Your task to perform on an android device: turn off notifications settings in the gmail app Image 0: 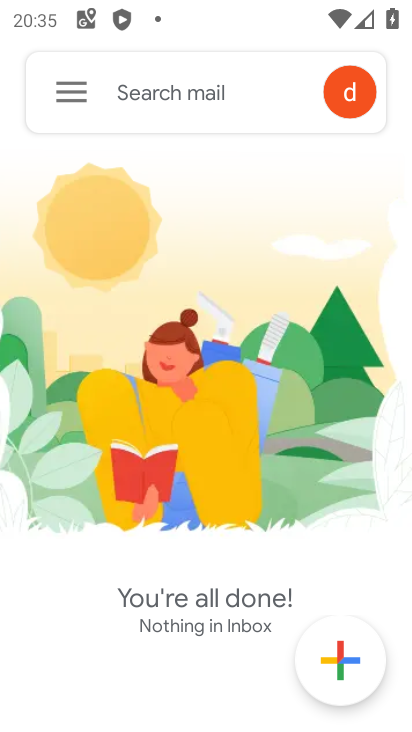
Step 0: click (60, 84)
Your task to perform on an android device: turn off notifications settings in the gmail app Image 1: 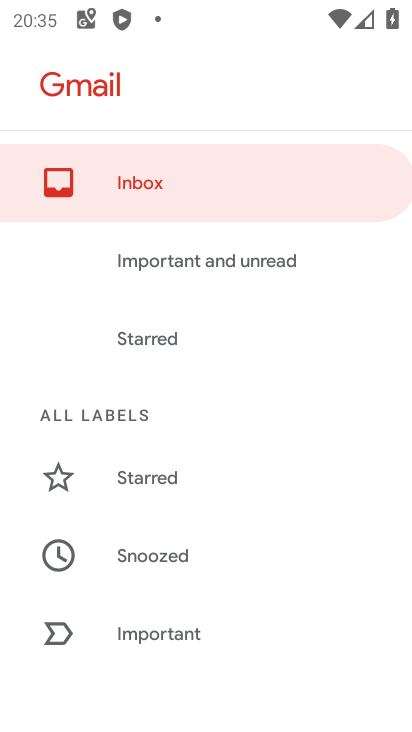
Step 1: drag from (103, 594) to (151, 135)
Your task to perform on an android device: turn off notifications settings in the gmail app Image 2: 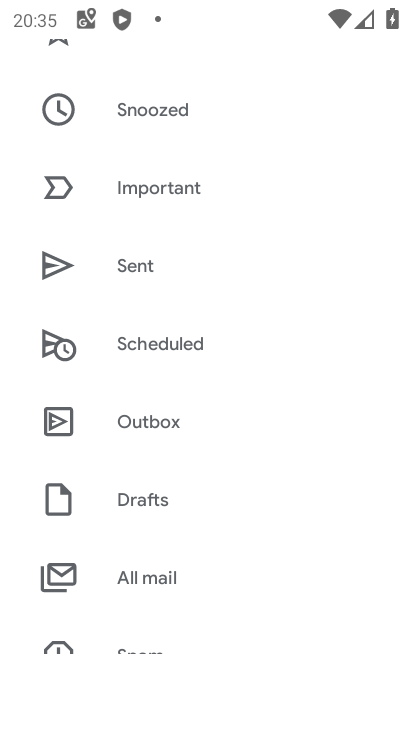
Step 2: drag from (198, 264) to (215, 107)
Your task to perform on an android device: turn off notifications settings in the gmail app Image 3: 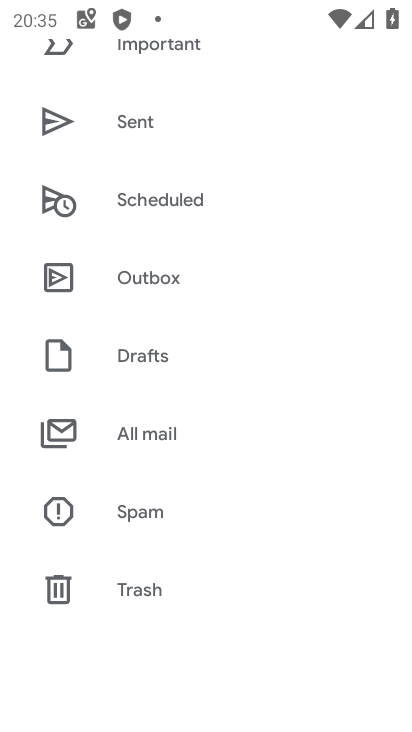
Step 3: drag from (164, 146) to (180, 648)
Your task to perform on an android device: turn off notifications settings in the gmail app Image 4: 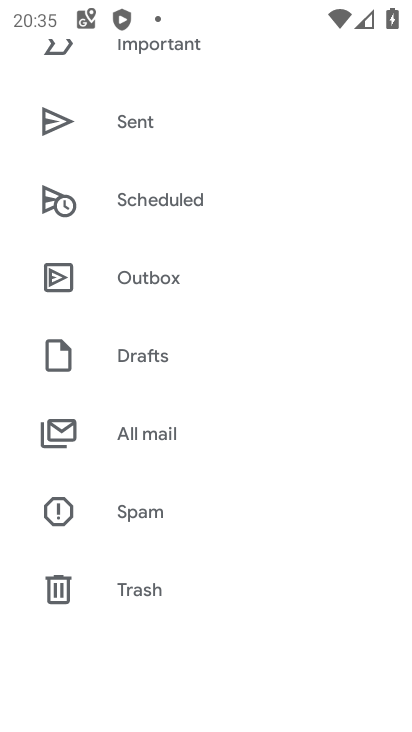
Step 4: drag from (250, 188) to (260, 675)
Your task to perform on an android device: turn off notifications settings in the gmail app Image 5: 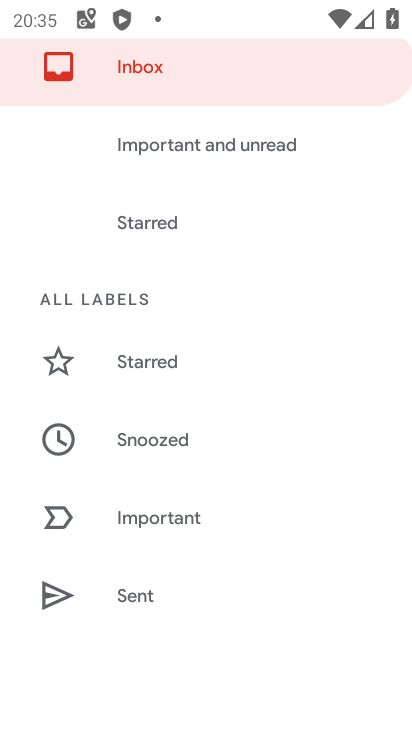
Step 5: drag from (194, 588) to (264, 130)
Your task to perform on an android device: turn off notifications settings in the gmail app Image 6: 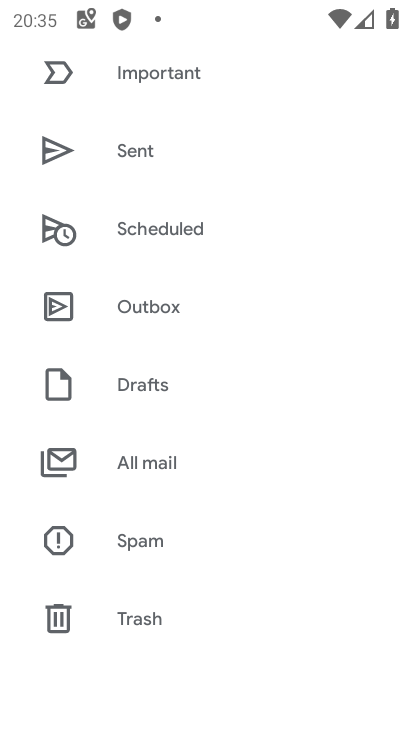
Step 6: drag from (241, 136) to (226, 519)
Your task to perform on an android device: turn off notifications settings in the gmail app Image 7: 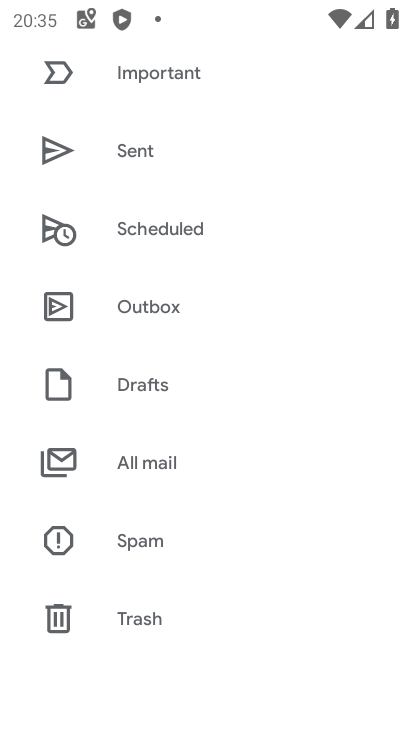
Step 7: drag from (242, 168) to (244, 512)
Your task to perform on an android device: turn off notifications settings in the gmail app Image 8: 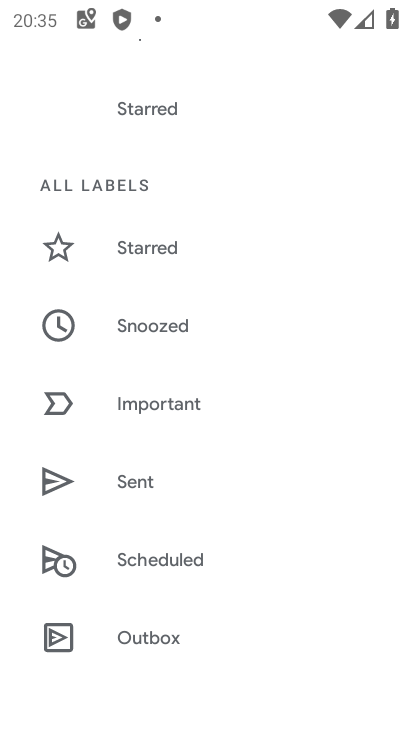
Step 8: drag from (115, 604) to (108, 128)
Your task to perform on an android device: turn off notifications settings in the gmail app Image 9: 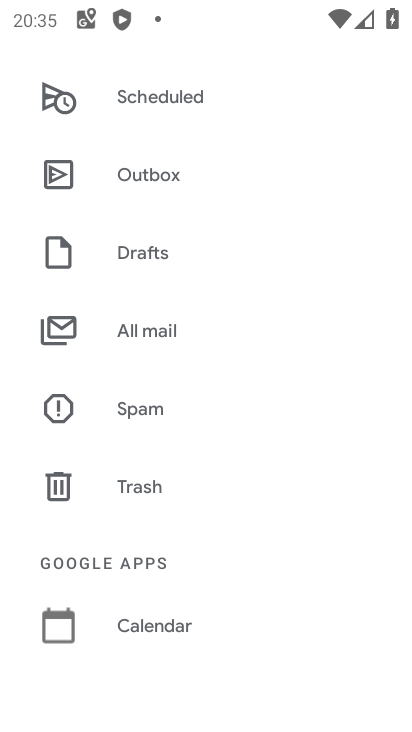
Step 9: drag from (194, 134) to (248, 667)
Your task to perform on an android device: turn off notifications settings in the gmail app Image 10: 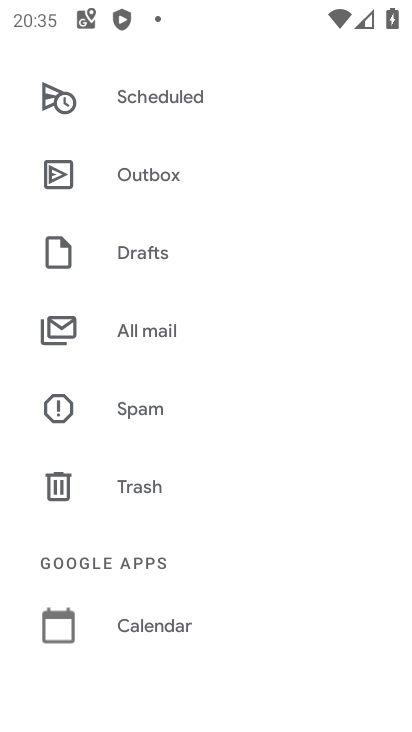
Step 10: drag from (250, 148) to (233, 628)
Your task to perform on an android device: turn off notifications settings in the gmail app Image 11: 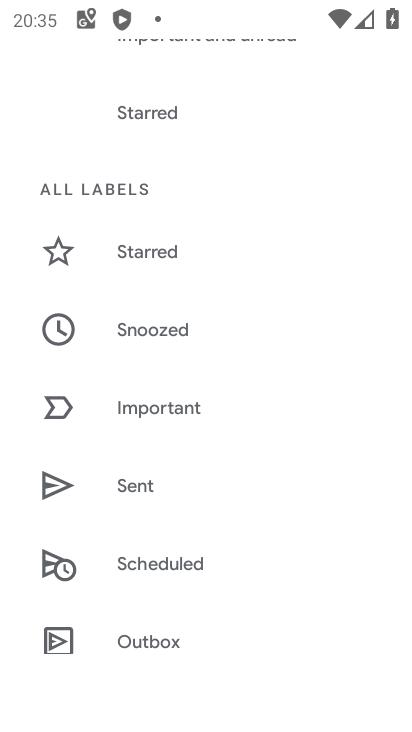
Step 11: drag from (247, 269) to (241, 597)
Your task to perform on an android device: turn off notifications settings in the gmail app Image 12: 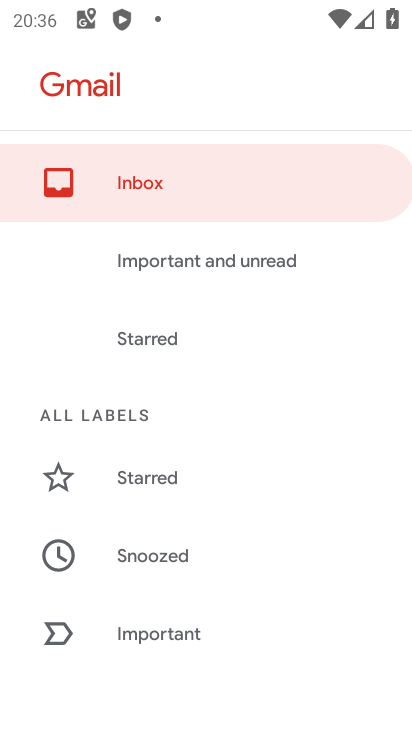
Step 12: drag from (241, 597) to (311, 10)
Your task to perform on an android device: turn off notifications settings in the gmail app Image 13: 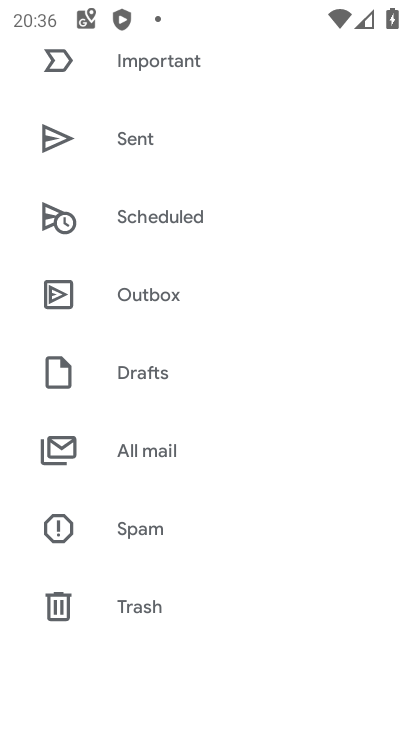
Step 13: drag from (211, 560) to (243, 100)
Your task to perform on an android device: turn off notifications settings in the gmail app Image 14: 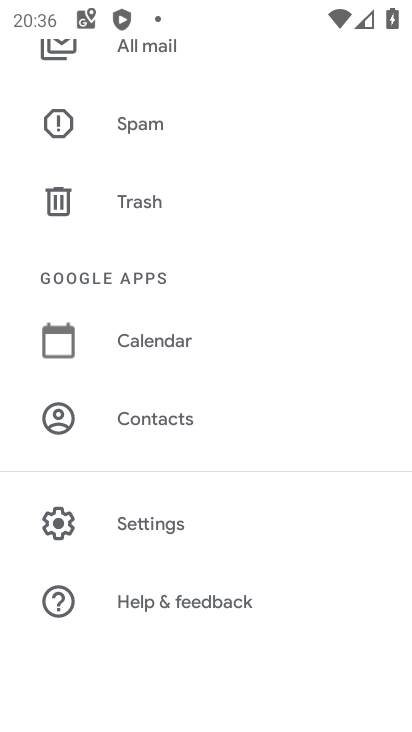
Step 14: click (143, 524)
Your task to perform on an android device: turn off notifications settings in the gmail app Image 15: 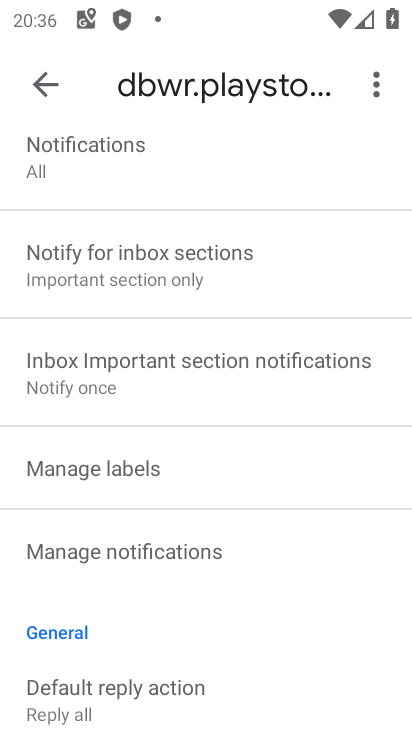
Step 15: click (144, 186)
Your task to perform on an android device: turn off notifications settings in the gmail app Image 16: 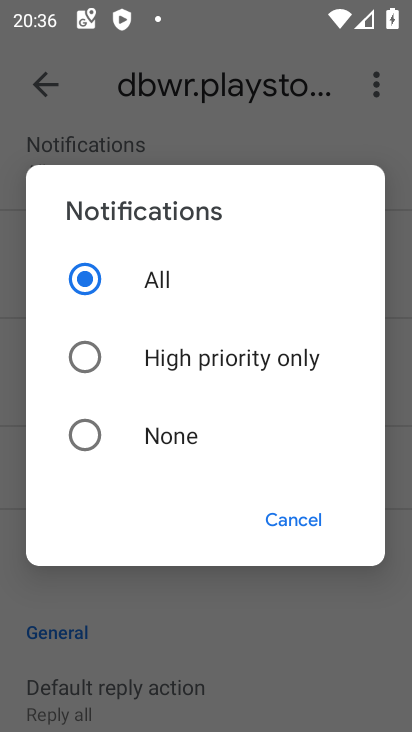
Step 16: click (74, 431)
Your task to perform on an android device: turn off notifications settings in the gmail app Image 17: 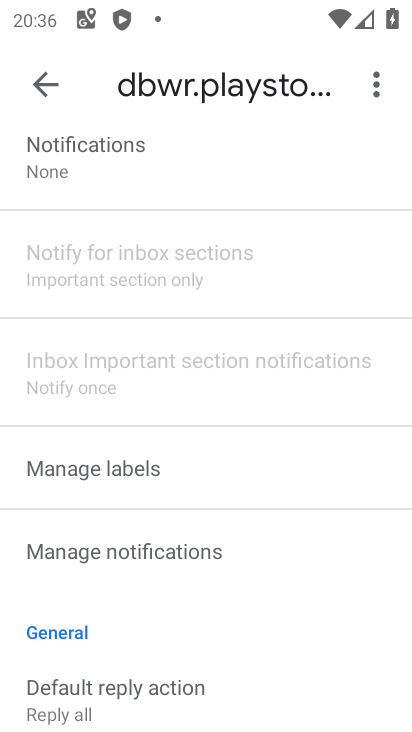
Step 17: task complete